Your task to perform on an android device: Go to Yahoo.com Image 0: 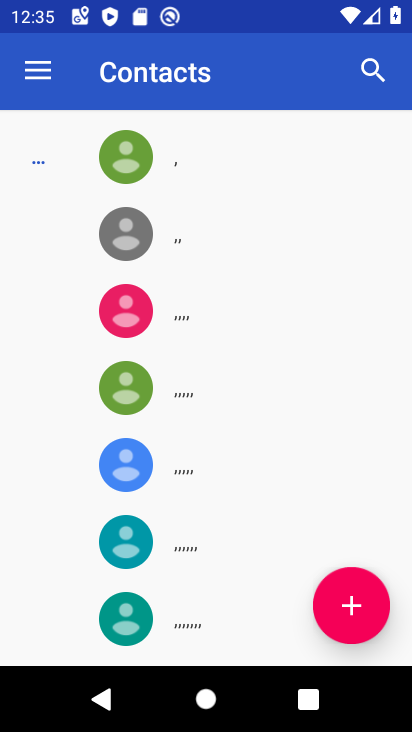
Step 0: press home button
Your task to perform on an android device: Go to Yahoo.com Image 1: 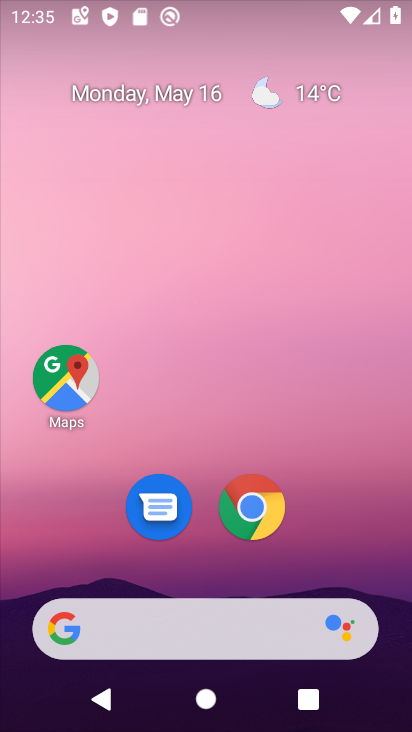
Step 1: click (251, 515)
Your task to perform on an android device: Go to Yahoo.com Image 2: 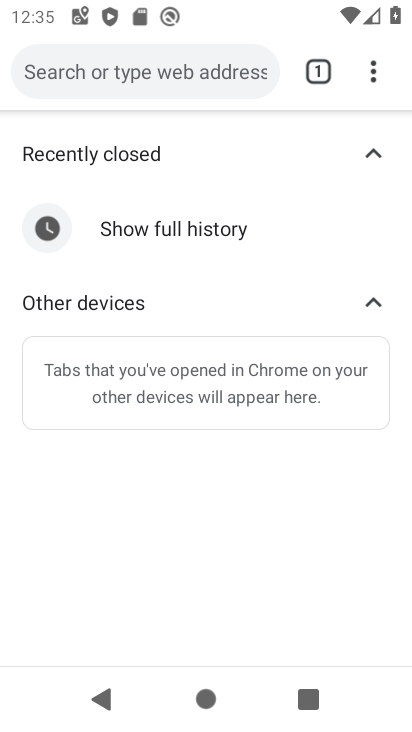
Step 2: click (312, 73)
Your task to perform on an android device: Go to Yahoo.com Image 3: 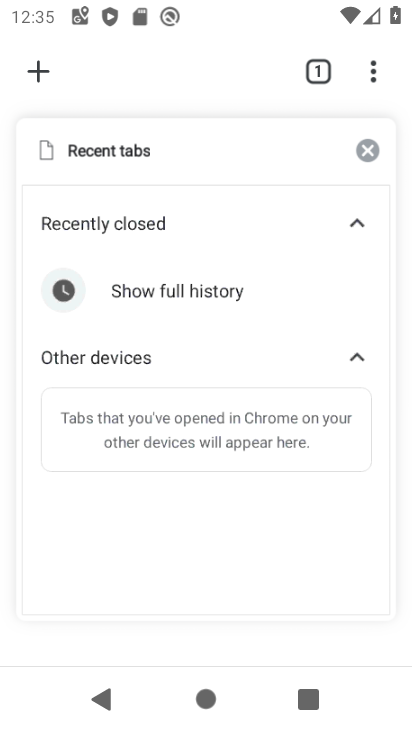
Step 3: click (43, 70)
Your task to perform on an android device: Go to Yahoo.com Image 4: 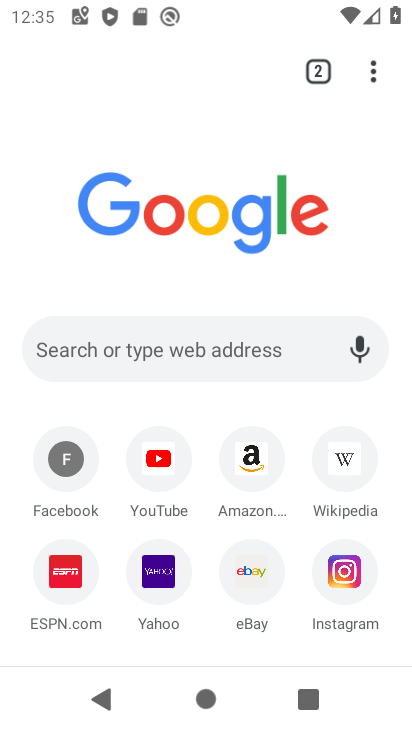
Step 4: click (164, 579)
Your task to perform on an android device: Go to Yahoo.com Image 5: 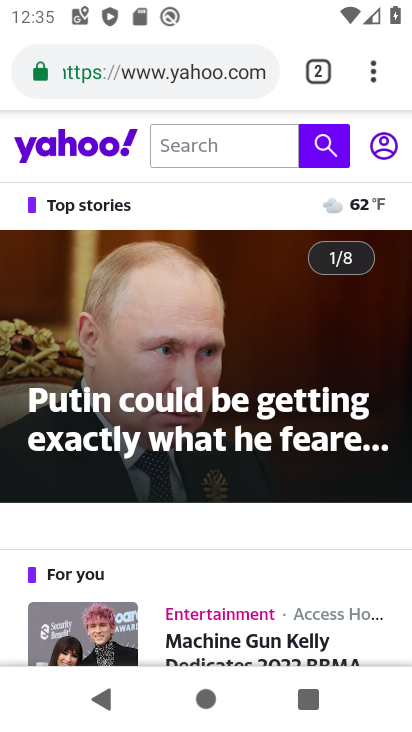
Step 5: task complete